Your task to perform on an android device: Show me recent news Image 0: 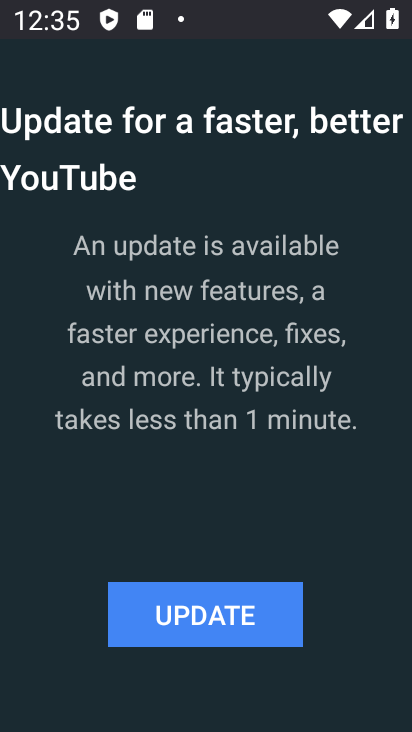
Step 0: press home button
Your task to perform on an android device: Show me recent news Image 1: 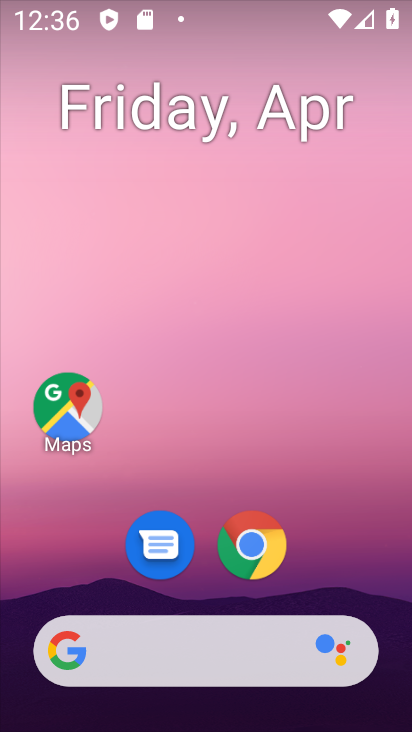
Step 1: click (220, 637)
Your task to perform on an android device: Show me recent news Image 2: 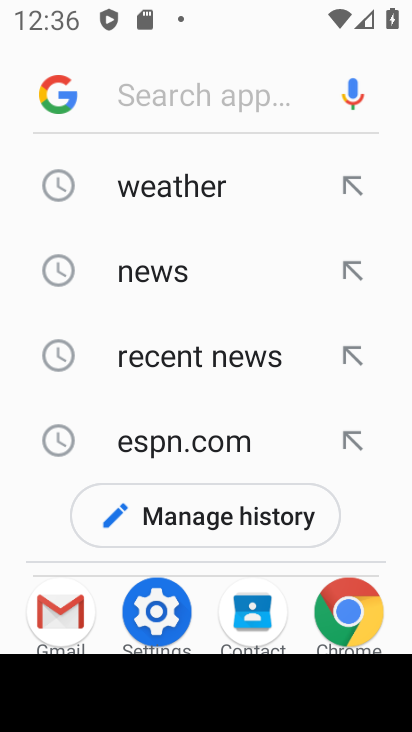
Step 2: click (183, 367)
Your task to perform on an android device: Show me recent news Image 3: 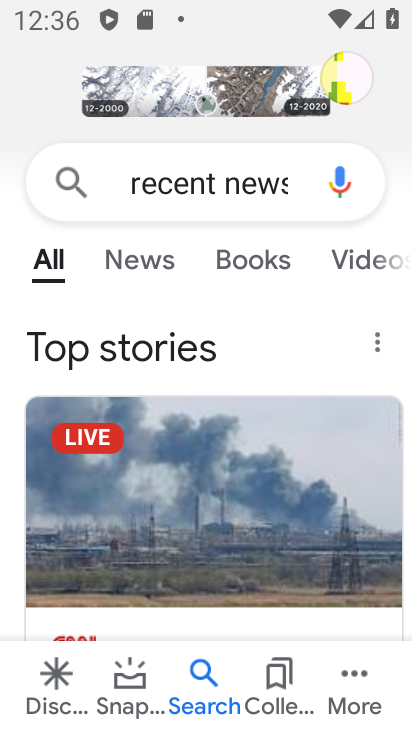
Step 3: click (147, 266)
Your task to perform on an android device: Show me recent news Image 4: 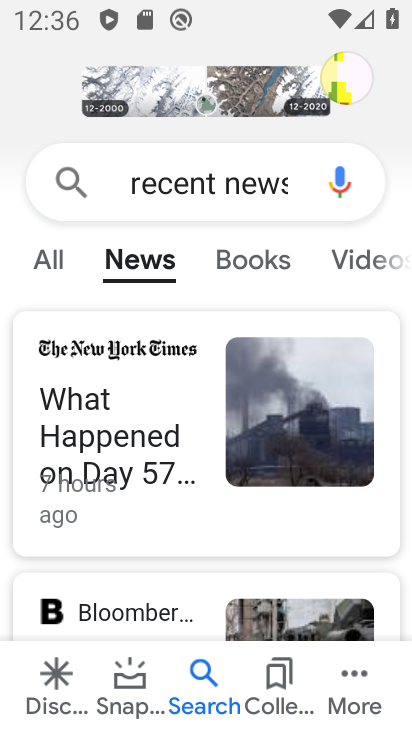
Step 4: task complete